Your task to perform on an android device: set the stopwatch Image 0: 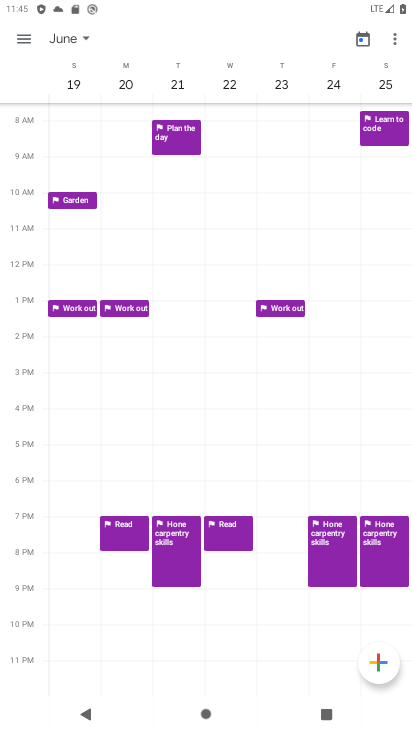
Step 0: press home button
Your task to perform on an android device: set the stopwatch Image 1: 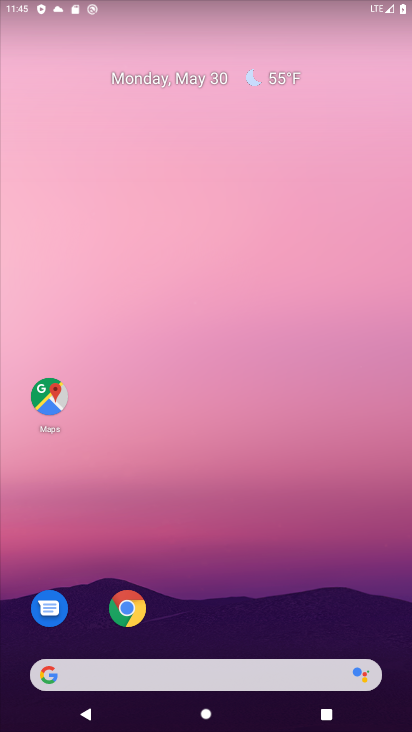
Step 1: drag from (241, 652) to (236, 33)
Your task to perform on an android device: set the stopwatch Image 2: 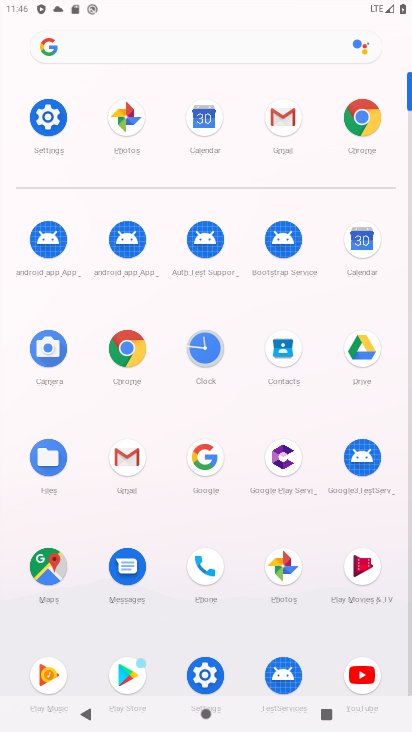
Step 2: click (203, 348)
Your task to perform on an android device: set the stopwatch Image 3: 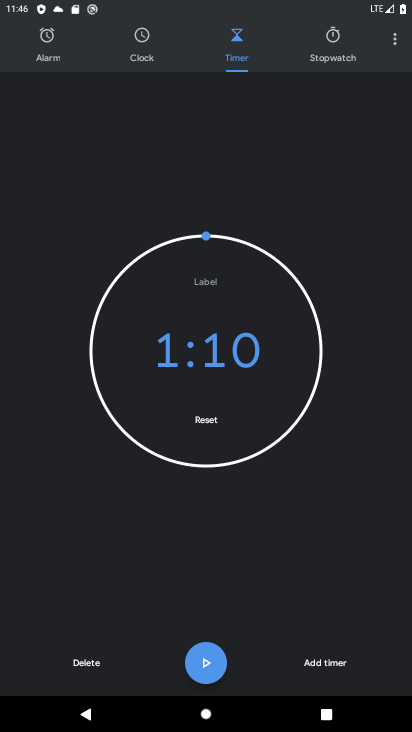
Step 3: click (316, 59)
Your task to perform on an android device: set the stopwatch Image 4: 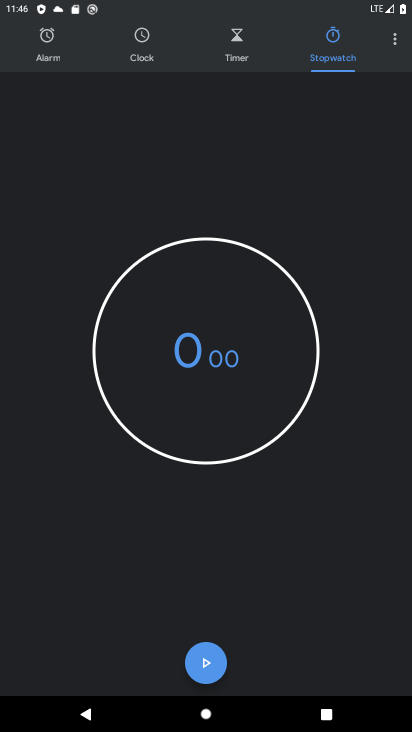
Step 4: click (200, 672)
Your task to perform on an android device: set the stopwatch Image 5: 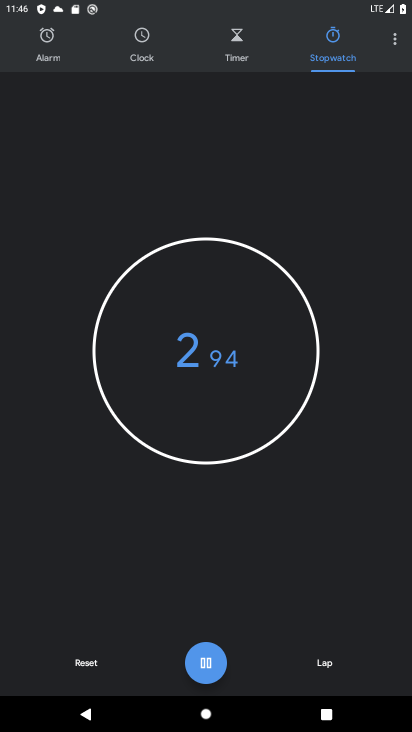
Step 5: click (200, 672)
Your task to perform on an android device: set the stopwatch Image 6: 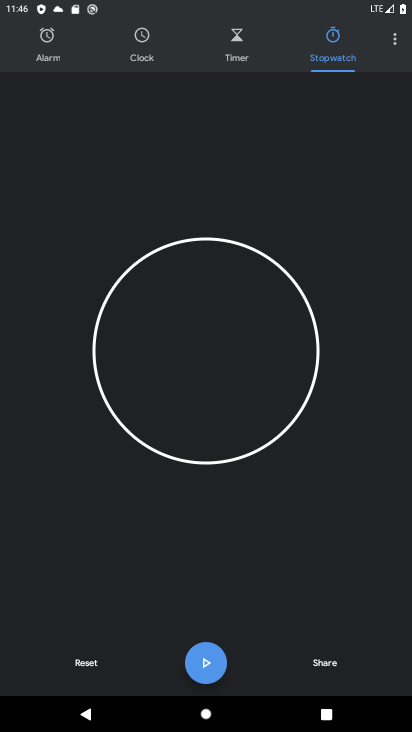
Step 6: task complete